Your task to perform on an android device: Open Google Chrome and click the shortcut for Amazon.com Image 0: 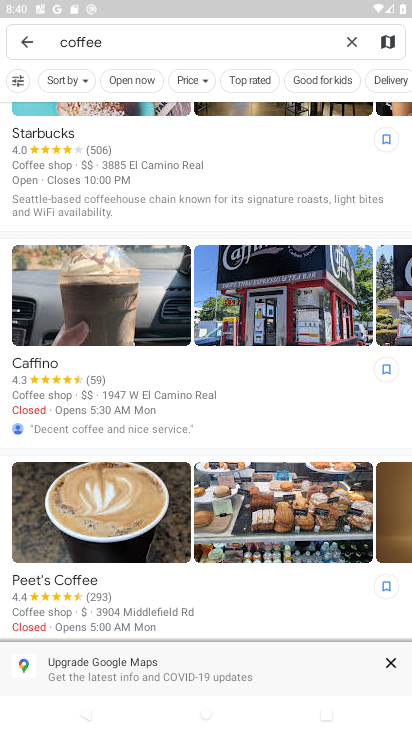
Step 0: press home button
Your task to perform on an android device: Open Google Chrome and click the shortcut for Amazon.com Image 1: 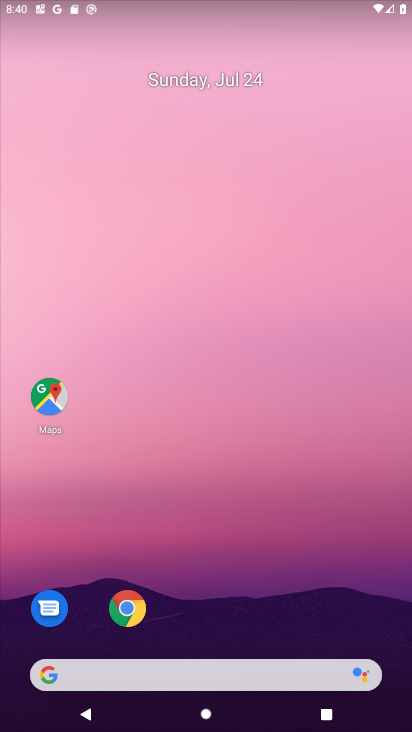
Step 1: click (140, 594)
Your task to perform on an android device: Open Google Chrome and click the shortcut for Amazon.com Image 2: 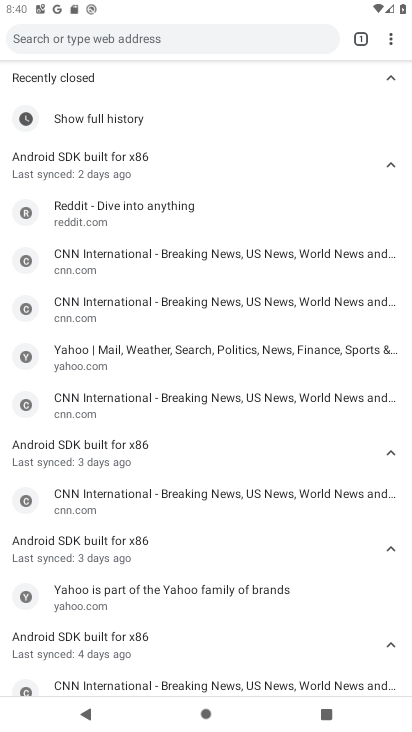
Step 2: click (360, 38)
Your task to perform on an android device: Open Google Chrome and click the shortcut for Amazon.com Image 3: 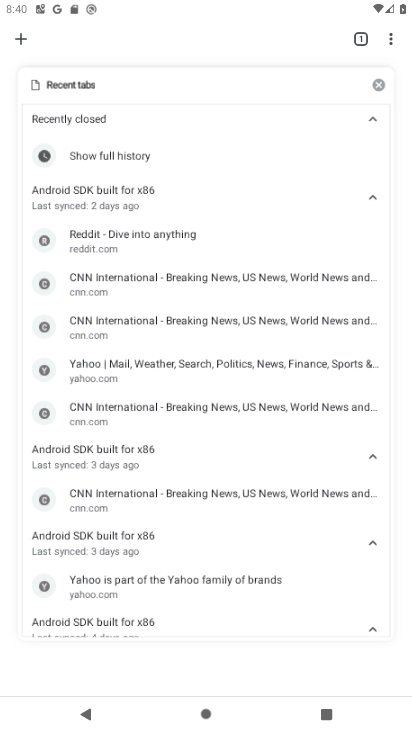
Step 3: click (28, 44)
Your task to perform on an android device: Open Google Chrome and click the shortcut for Amazon.com Image 4: 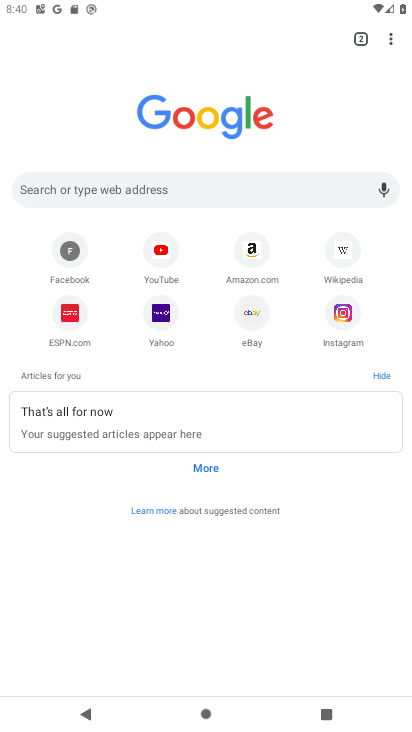
Step 4: click (259, 263)
Your task to perform on an android device: Open Google Chrome and click the shortcut for Amazon.com Image 5: 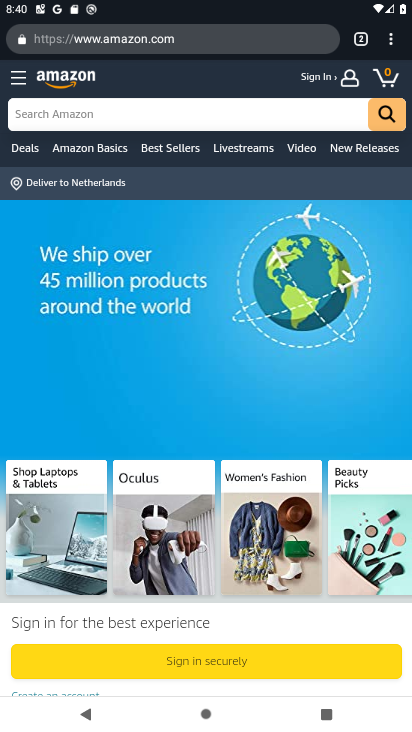
Step 5: task complete